Your task to perform on an android device: What's the weather? Image 0: 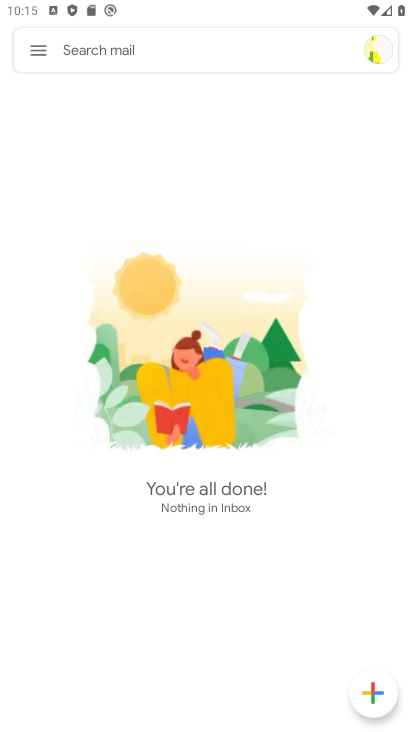
Step 0: click (276, 574)
Your task to perform on an android device: What's the weather? Image 1: 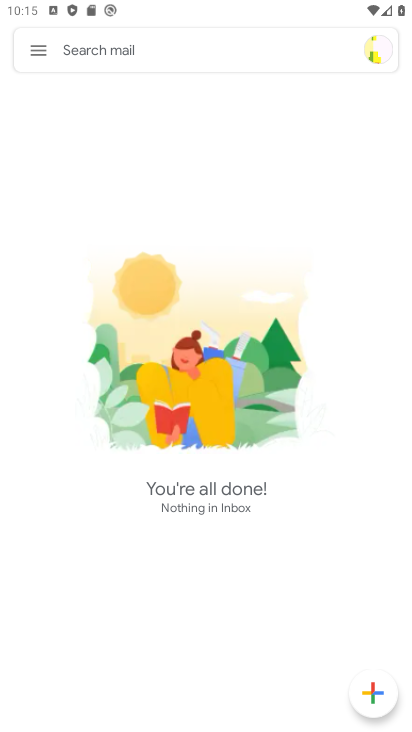
Step 1: press home button
Your task to perform on an android device: What's the weather? Image 2: 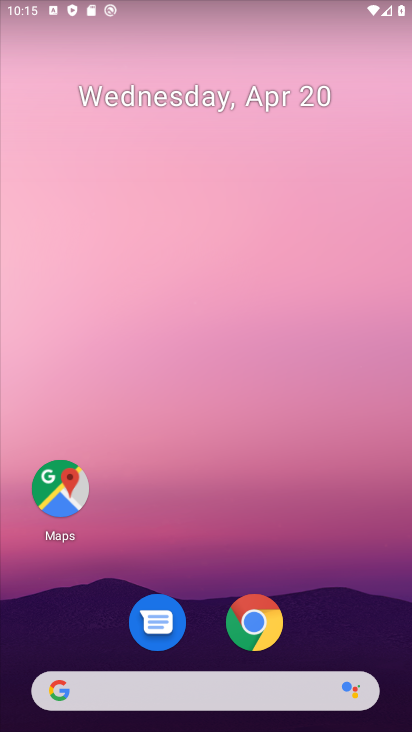
Step 2: drag from (332, 608) to (348, 145)
Your task to perform on an android device: What's the weather? Image 3: 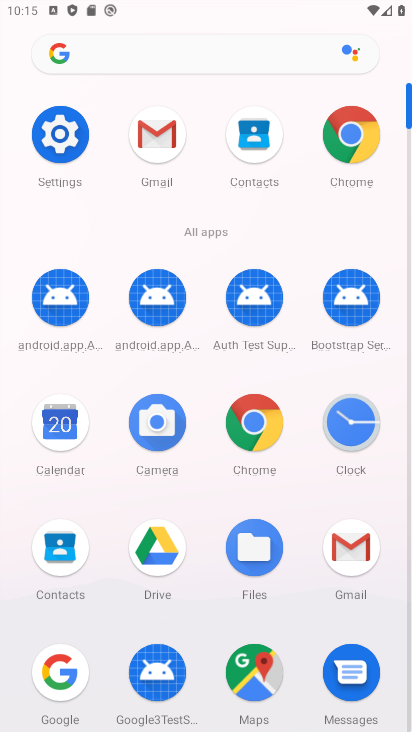
Step 3: press back button
Your task to perform on an android device: What's the weather? Image 4: 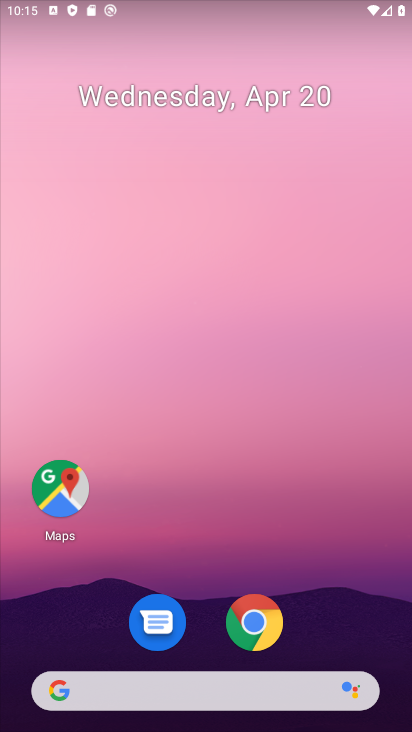
Step 4: drag from (15, 199) to (56, 250)
Your task to perform on an android device: What's the weather? Image 5: 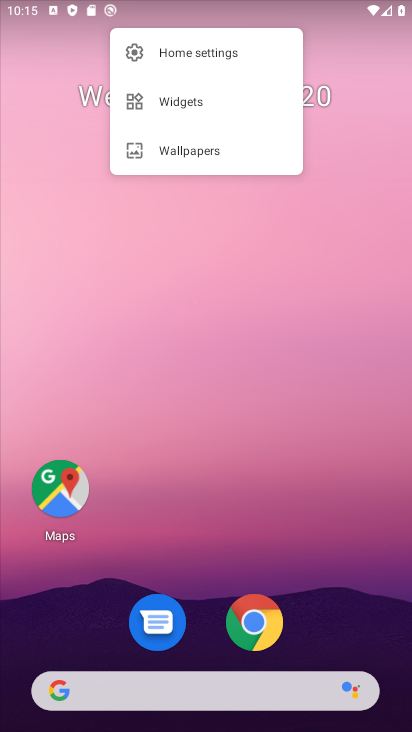
Step 5: click (23, 198)
Your task to perform on an android device: What's the weather? Image 6: 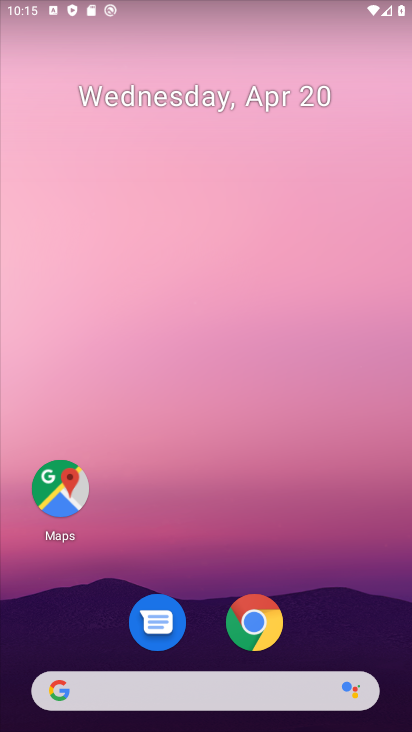
Step 6: click (87, 219)
Your task to perform on an android device: What's the weather? Image 7: 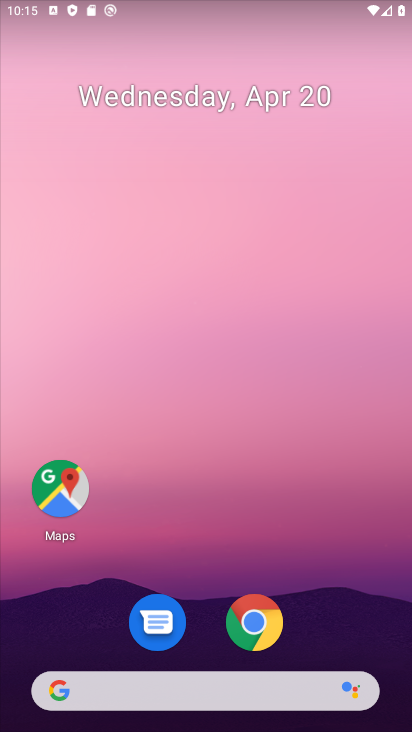
Step 7: drag from (8, 176) to (372, 171)
Your task to perform on an android device: What's the weather? Image 8: 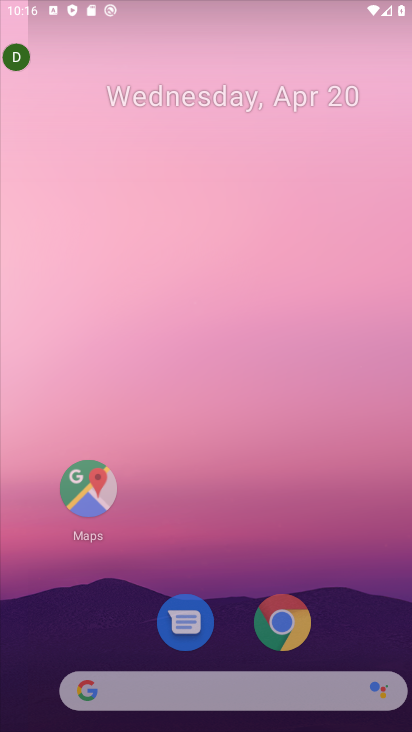
Step 8: drag from (39, 172) to (403, 183)
Your task to perform on an android device: What's the weather? Image 9: 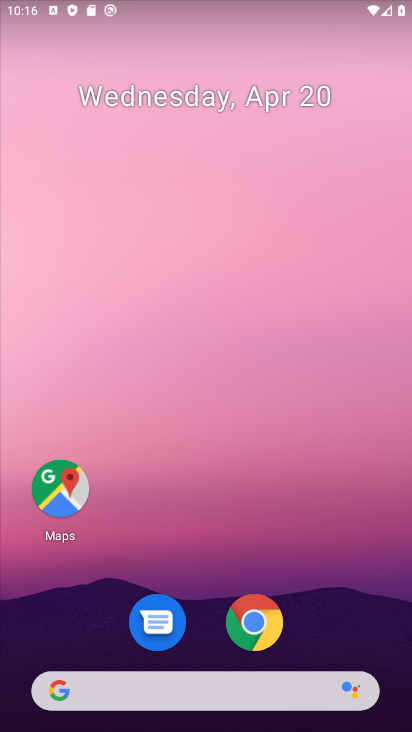
Step 9: drag from (8, 143) to (390, 159)
Your task to perform on an android device: What's the weather? Image 10: 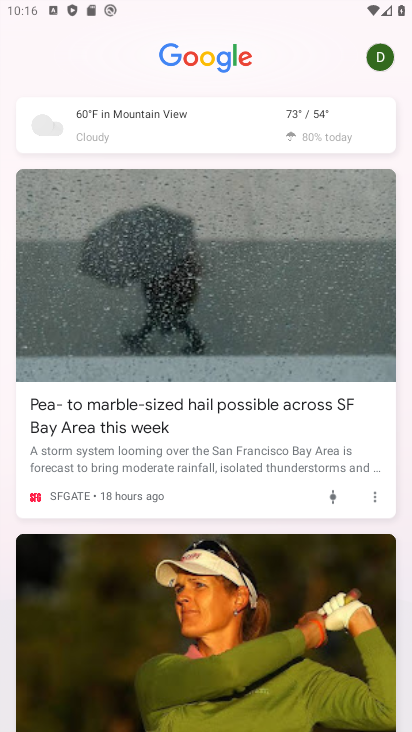
Step 10: click (219, 123)
Your task to perform on an android device: What's the weather? Image 11: 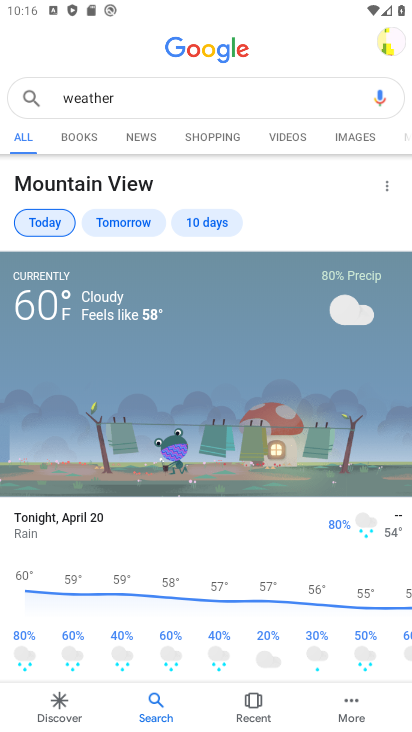
Step 11: task complete